Your task to perform on an android device: turn vacation reply on in the gmail app Image 0: 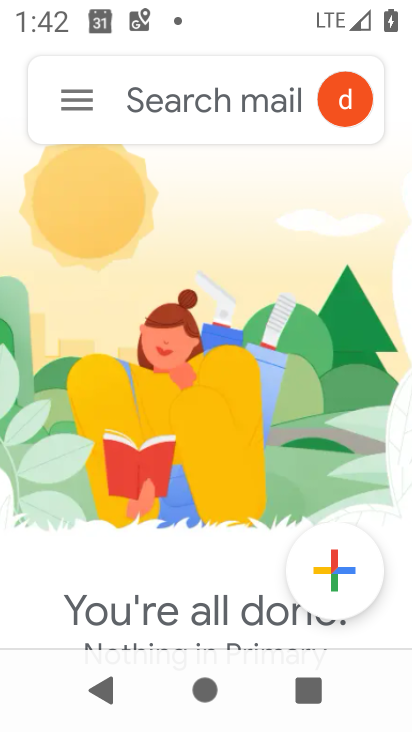
Step 0: click (85, 111)
Your task to perform on an android device: turn vacation reply on in the gmail app Image 1: 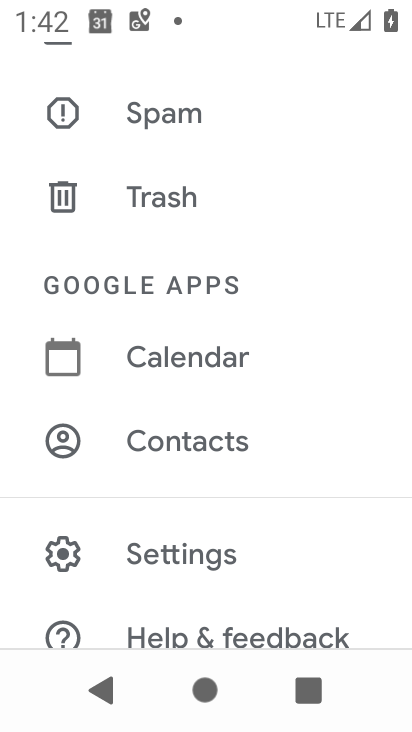
Step 1: drag from (323, 261) to (334, 369)
Your task to perform on an android device: turn vacation reply on in the gmail app Image 2: 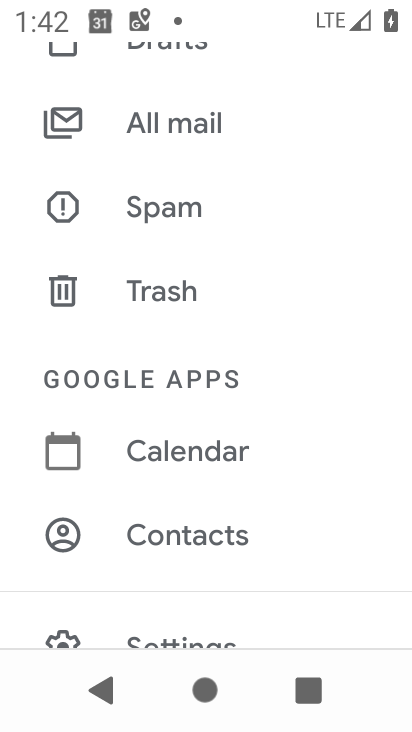
Step 2: drag from (321, 202) to (323, 310)
Your task to perform on an android device: turn vacation reply on in the gmail app Image 3: 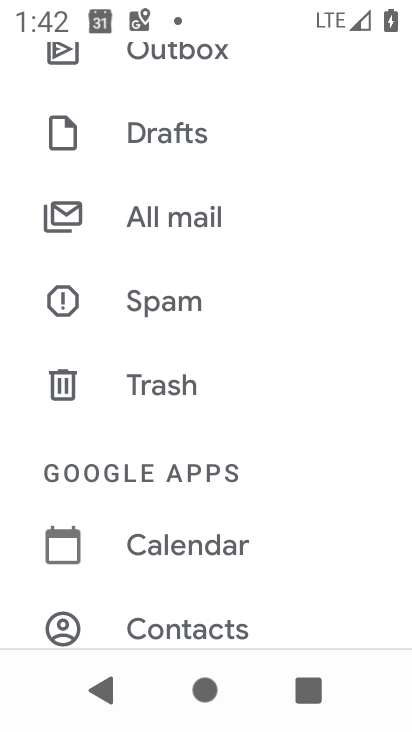
Step 3: drag from (323, 150) to (329, 319)
Your task to perform on an android device: turn vacation reply on in the gmail app Image 4: 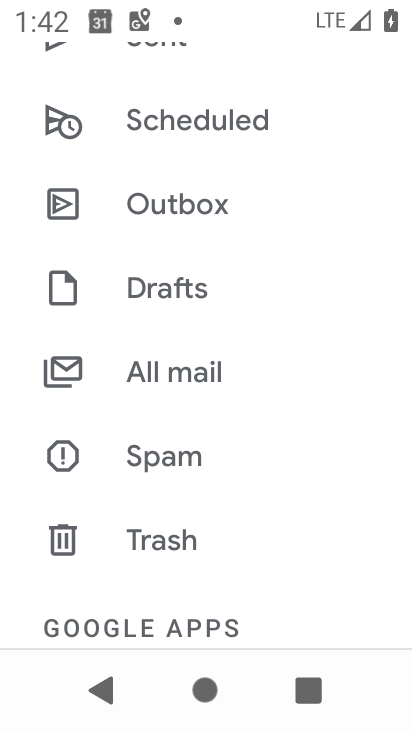
Step 4: drag from (318, 159) to (321, 300)
Your task to perform on an android device: turn vacation reply on in the gmail app Image 5: 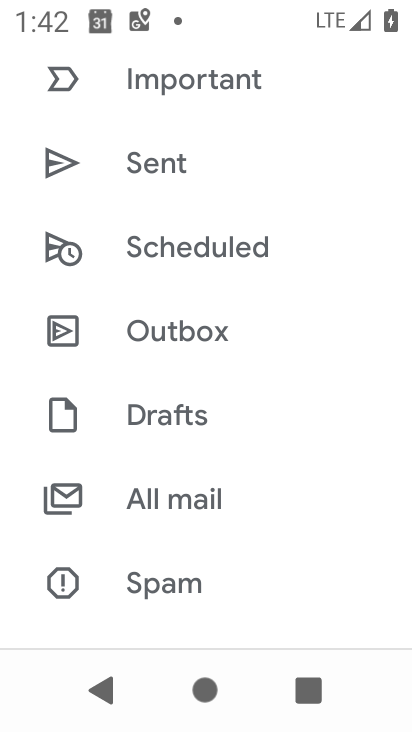
Step 5: drag from (319, 128) to (317, 295)
Your task to perform on an android device: turn vacation reply on in the gmail app Image 6: 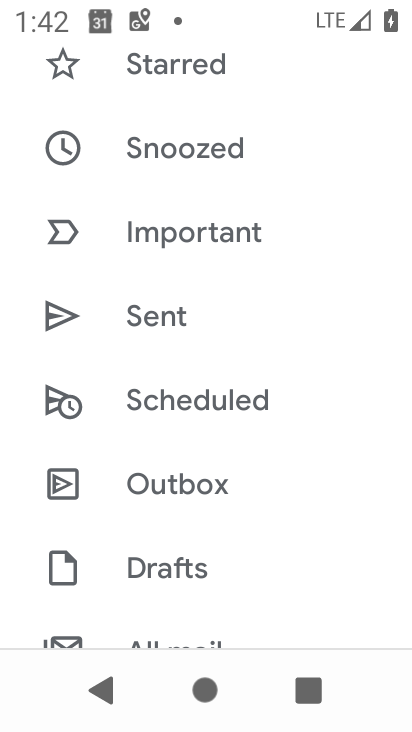
Step 6: drag from (324, 115) to (327, 294)
Your task to perform on an android device: turn vacation reply on in the gmail app Image 7: 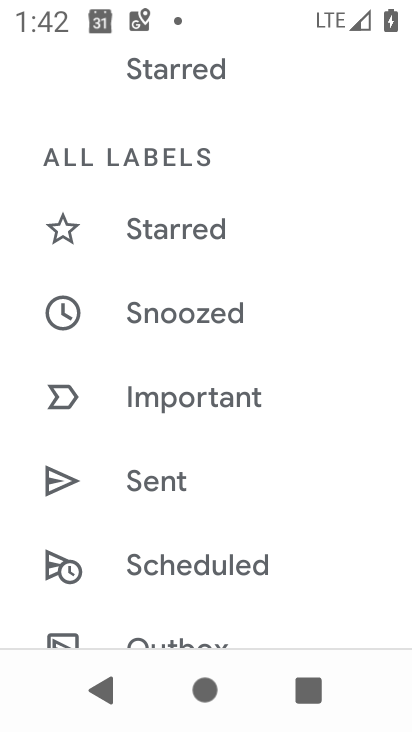
Step 7: drag from (326, 131) to (331, 269)
Your task to perform on an android device: turn vacation reply on in the gmail app Image 8: 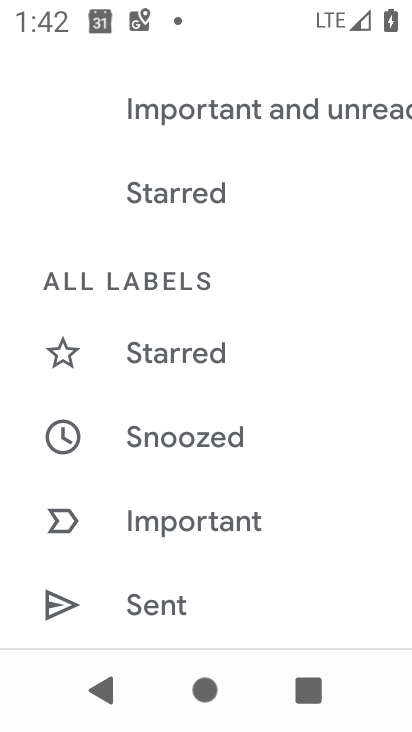
Step 8: drag from (338, 158) to (342, 355)
Your task to perform on an android device: turn vacation reply on in the gmail app Image 9: 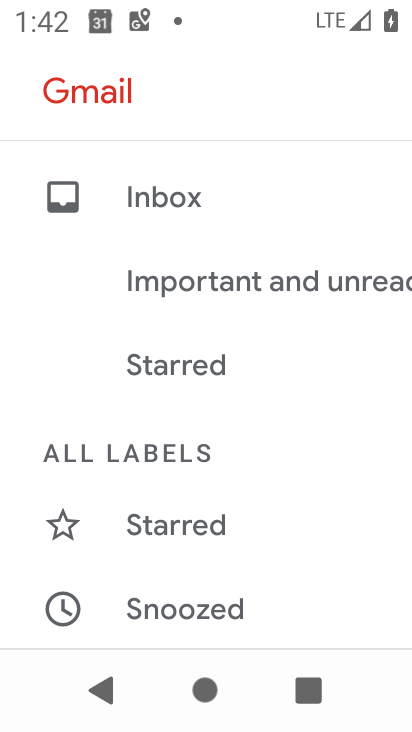
Step 9: drag from (327, 387) to (321, 297)
Your task to perform on an android device: turn vacation reply on in the gmail app Image 10: 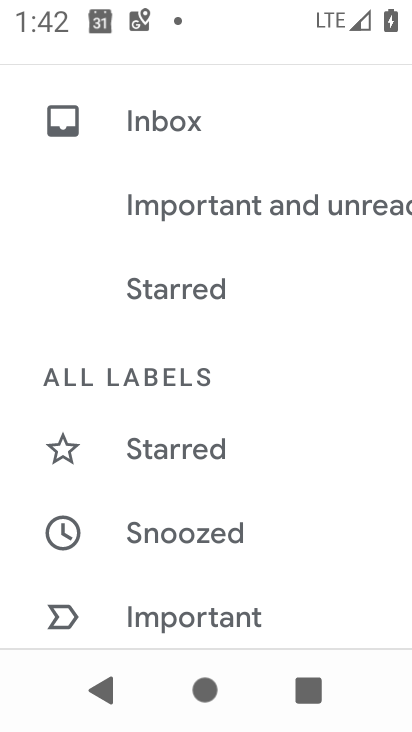
Step 10: drag from (341, 411) to (351, 282)
Your task to perform on an android device: turn vacation reply on in the gmail app Image 11: 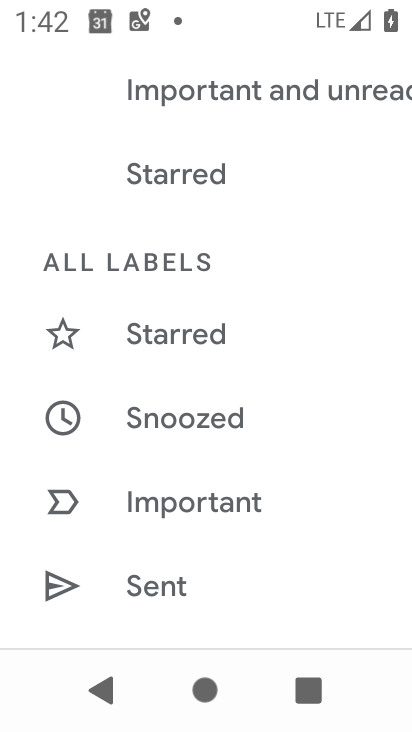
Step 11: drag from (333, 427) to (333, 326)
Your task to perform on an android device: turn vacation reply on in the gmail app Image 12: 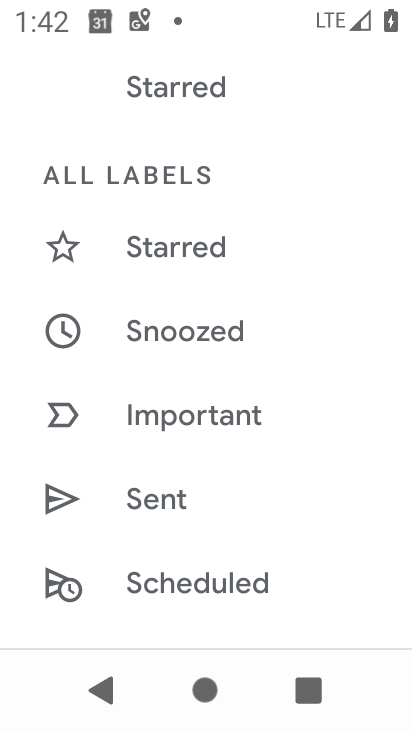
Step 12: drag from (325, 459) to (322, 327)
Your task to perform on an android device: turn vacation reply on in the gmail app Image 13: 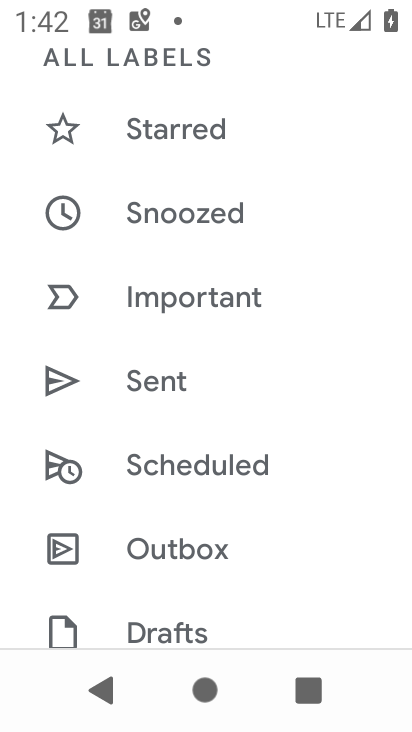
Step 13: drag from (311, 486) to (331, 328)
Your task to perform on an android device: turn vacation reply on in the gmail app Image 14: 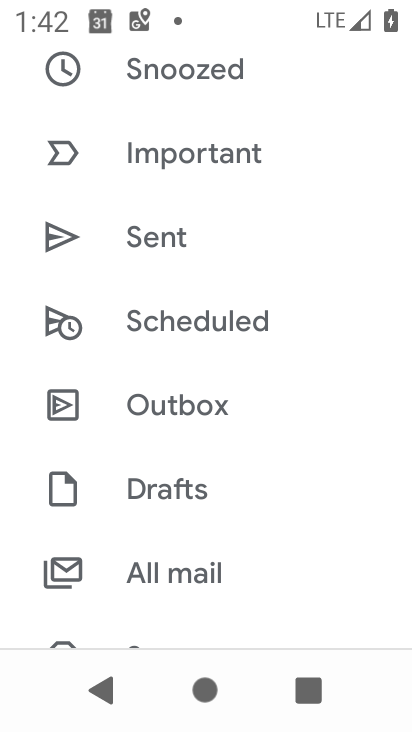
Step 14: drag from (321, 518) to (315, 349)
Your task to perform on an android device: turn vacation reply on in the gmail app Image 15: 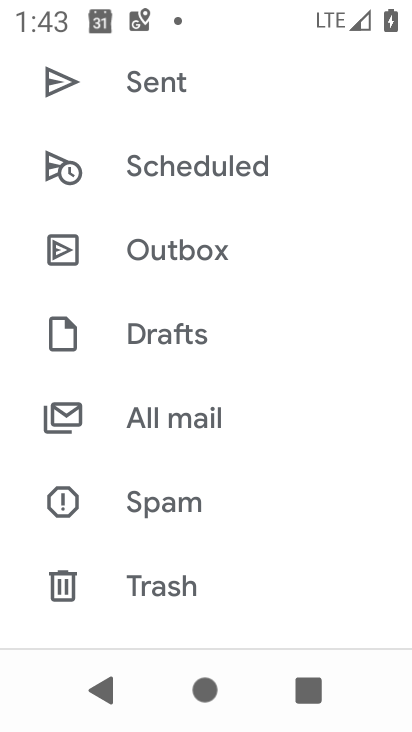
Step 15: drag from (304, 547) to (325, 402)
Your task to perform on an android device: turn vacation reply on in the gmail app Image 16: 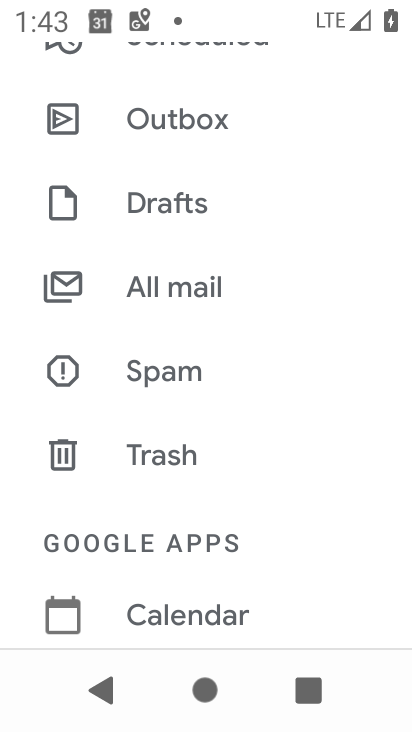
Step 16: drag from (305, 565) to (299, 403)
Your task to perform on an android device: turn vacation reply on in the gmail app Image 17: 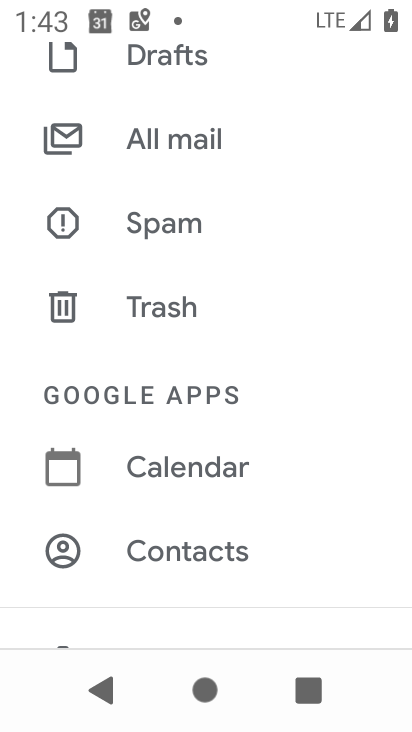
Step 17: drag from (302, 590) to (313, 402)
Your task to perform on an android device: turn vacation reply on in the gmail app Image 18: 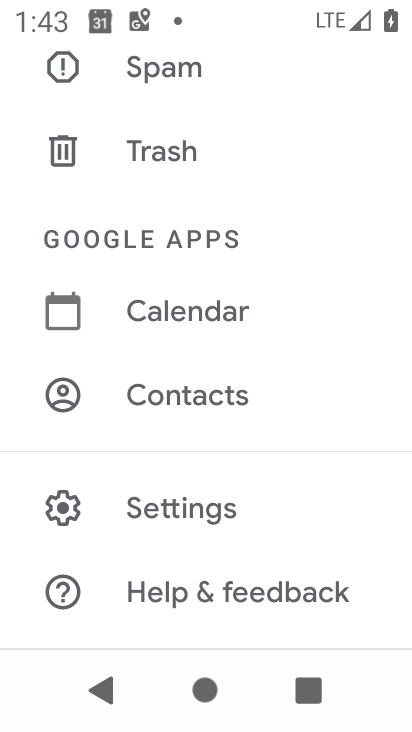
Step 18: click (214, 503)
Your task to perform on an android device: turn vacation reply on in the gmail app Image 19: 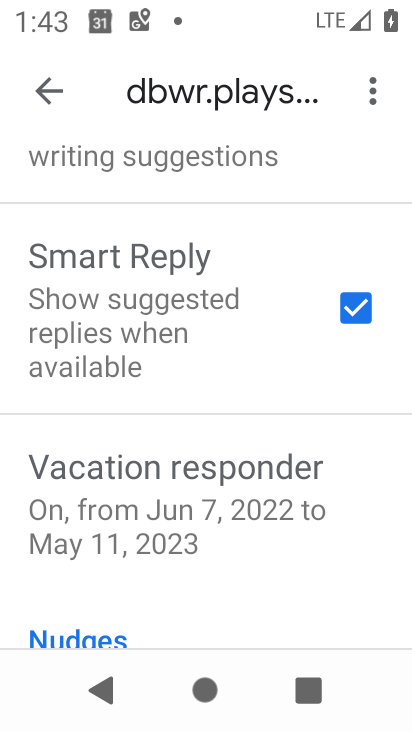
Step 19: drag from (284, 231) to (277, 360)
Your task to perform on an android device: turn vacation reply on in the gmail app Image 20: 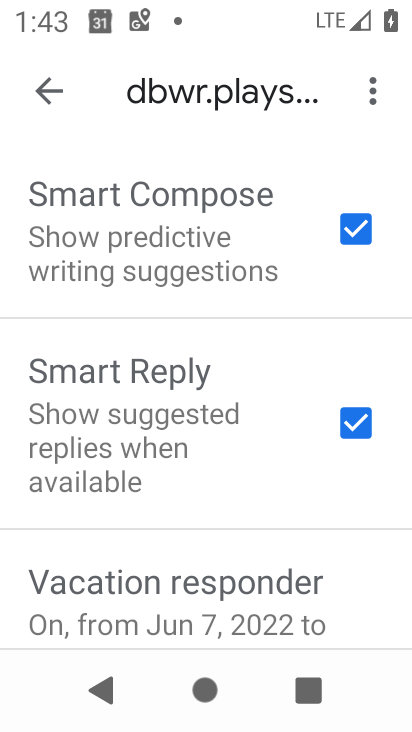
Step 20: drag from (287, 176) to (284, 373)
Your task to perform on an android device: turn vacation reply on in the gmail app Image 21: 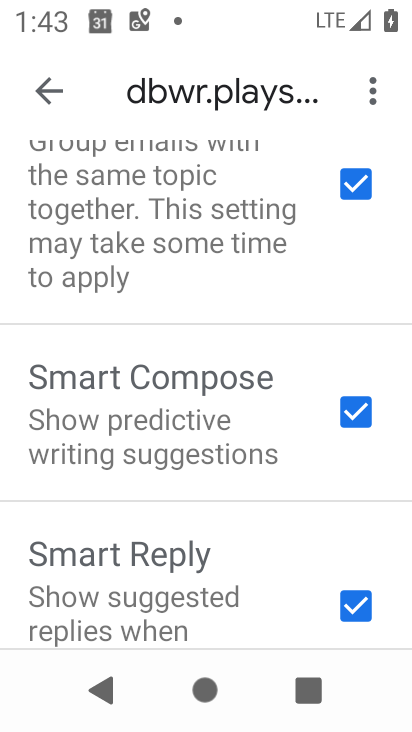
Step 21: drag from (303, 172) to (307, 372)
Your task to perform on an android device: turn vacation reply on in the gmail app Image 22: 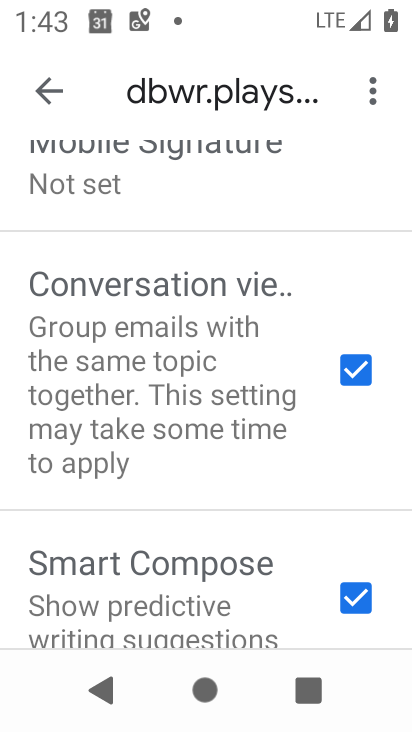
Step 22: drag from (296, 465) to (301, 338)
Your task to perform on an android device: turn vacation reply on in the gmail app Image 23: 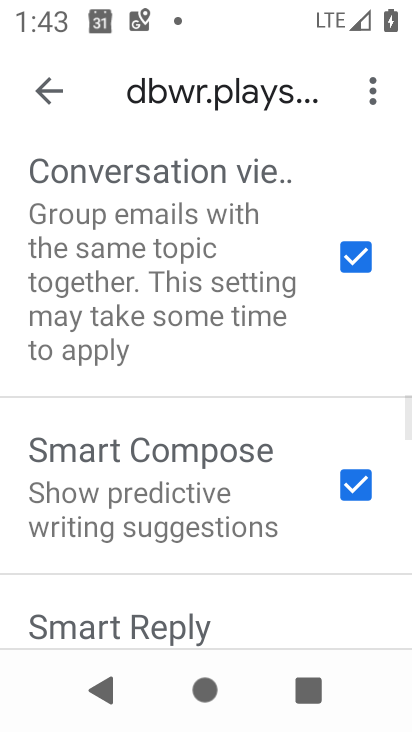
Step 23: drag from (290, 459) to (302, 331)
Your task to perform on an android device: turn vacation reply on in the gmail app Image 24: 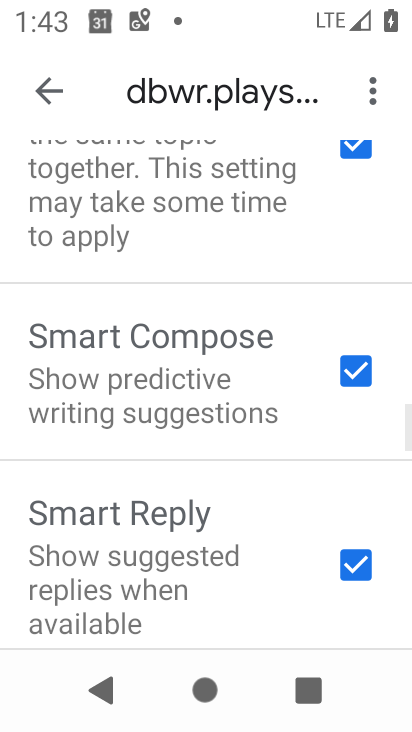
Step 24: drag from (290, 470) to (301, 351)
Your task to perform on an android device: turn vacation reply on in the gmail app Image 25: 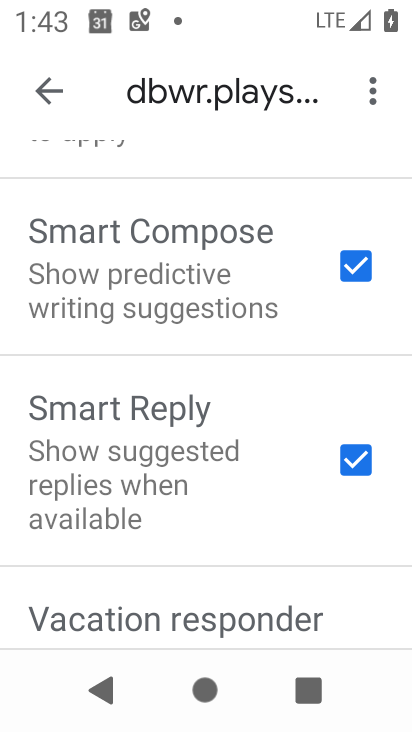
Step 25: drag from (281, 495) to (280, 345)
Your task to perform on an android device: turn vacation reply on in the gmail app Image 26: 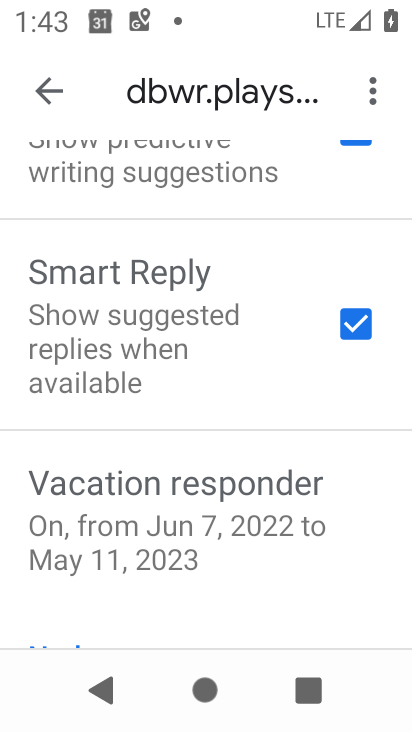
Step 26: drag from (273, 533) to (285, 325)
Your task to perform on an android device: turn vacation reply on in the gmail app Image 27: 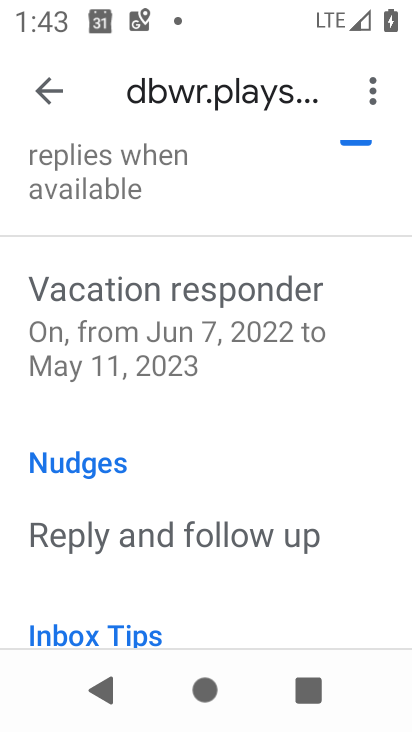
Step 27: click (236, 319)
Your task to perform on an android device: turn vacation reply on in the gmail app Image 28: 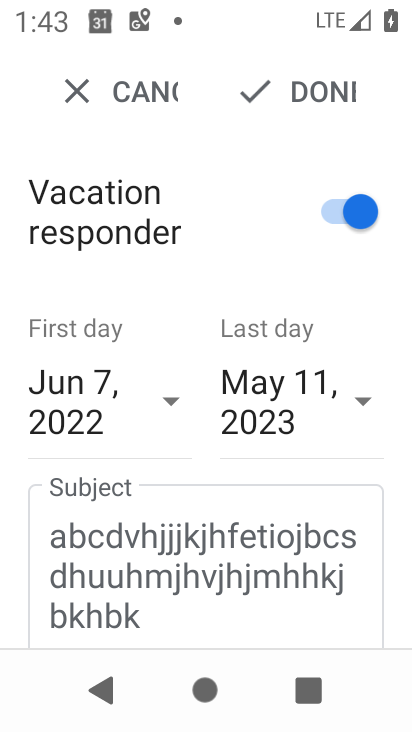
Step 28: task complete